Your task to perform on an android device: Open the calendar and show me this week's events? Image 0: 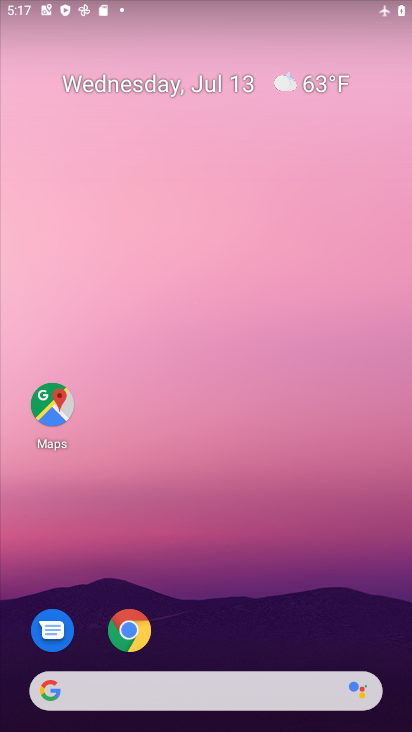
Step 0: press home button
Your task to perform on an android device: Open the calendar and show me this week's events? Image 1: 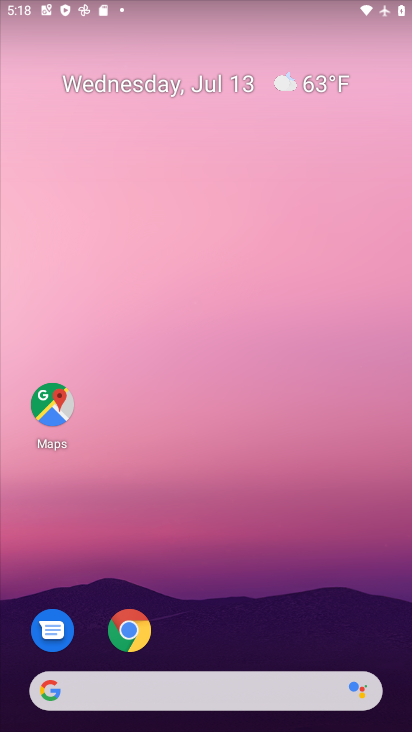
Step 1: drag from (220, 586) to (100, 75)
Your task to perform on an android device: Open the calendar and show me this week's events? Image 2: 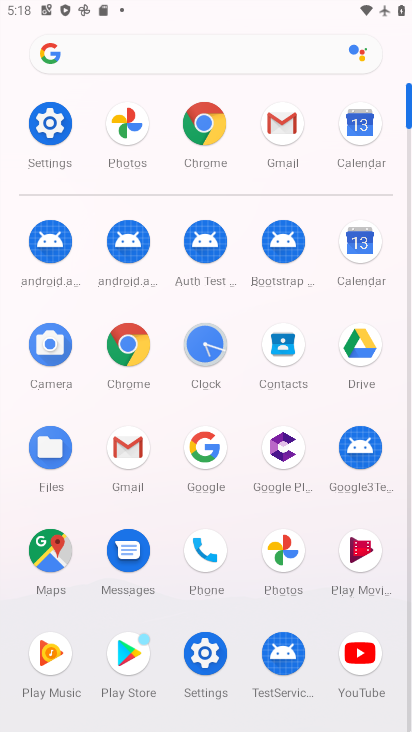
Step 2: click (356, 255)
Your task to perform on an android device: Open the calendar and show me this week's events? Image 3: 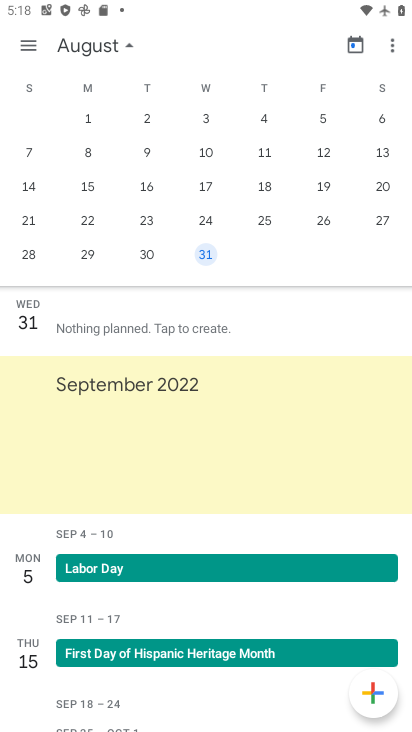
Step 3: drag from (96, 143) to (387, 121)
Your task to perform on an android device: Open the calendar and show me this week's events? Image 4: 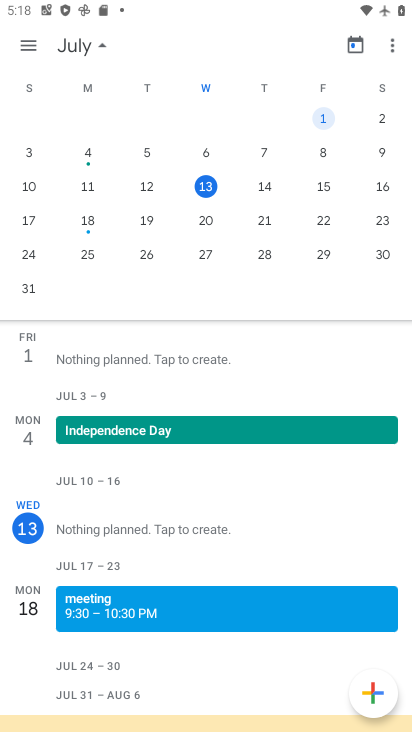
Step 4: click (24, 42)
Your task to perform on an android device: Open the calendar and show me this week's events? Image 5: 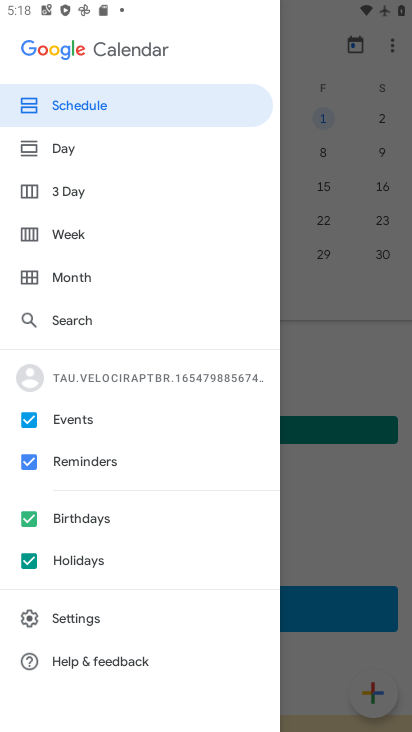
Step 5: click (57, 239)
Your task to perform on an android device: Open the calendar and show me this week's events? Image 6: 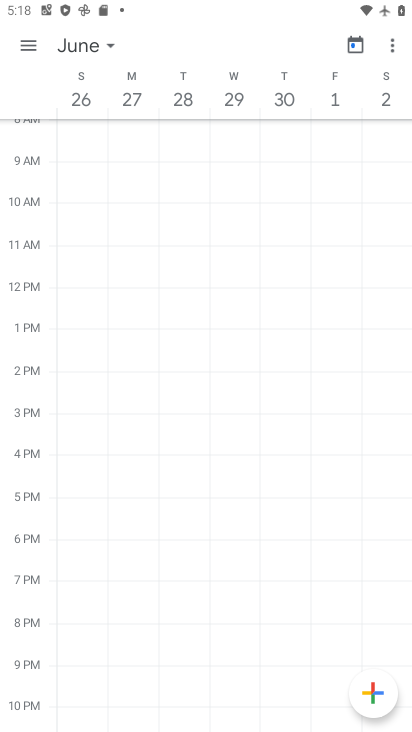
Step 6: task complete